Your task to perform on an android device: Go to display settings Image 0: 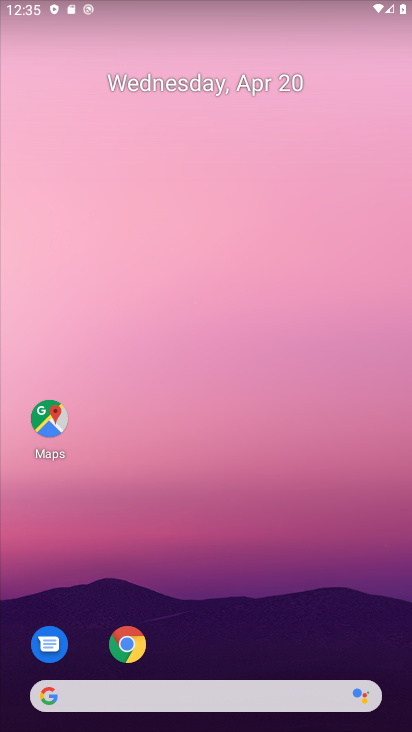
Step 0: drag from (348, 664) to (346, 6)
Your task to perform on an android device: Go to display settings Image 1: 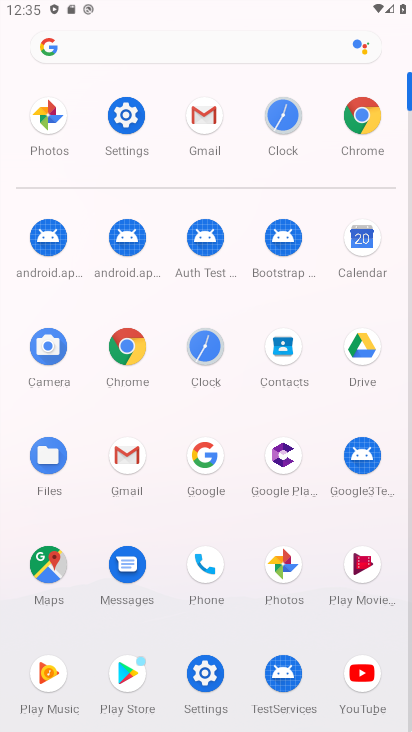
Step 1: click (123, 117)
Your task to perform on an android device: Go to display settings Image 2: 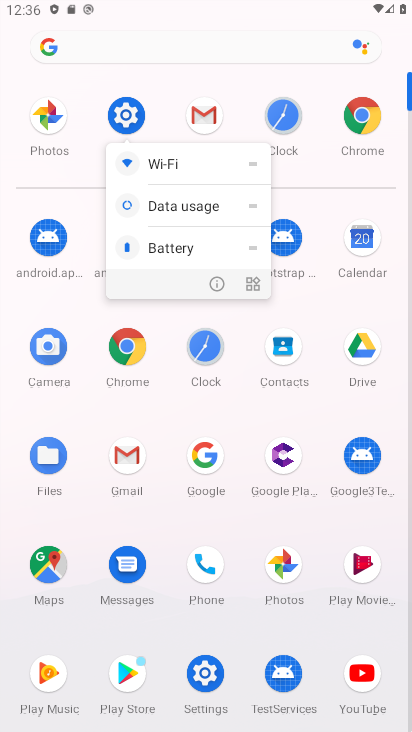
Step 2: click (126, 106)
Your task to perform on an android device: Go to display settings Image 3: 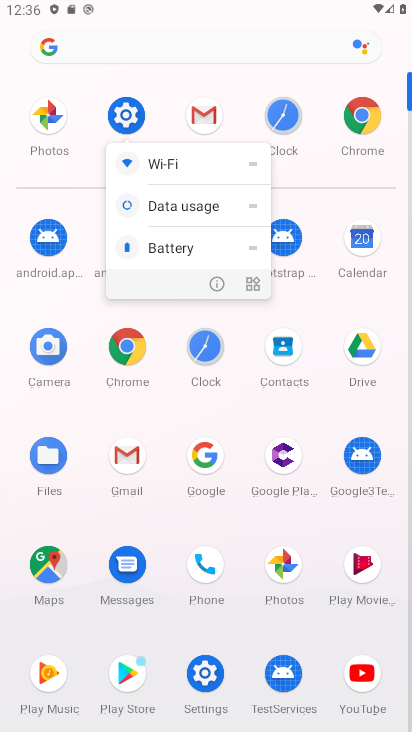
Step 3: click (126, 106)
Your task to perform on an android device: Go to display settings Image 4: 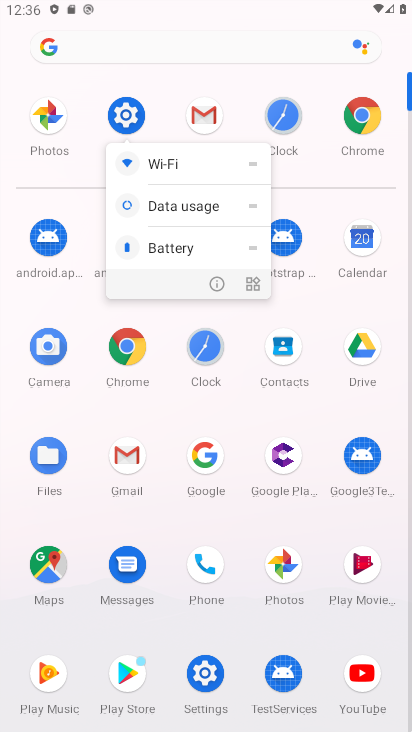
Step 4: click (126, 106)
Your task to perform on an android device: Go to display settings Image 5: 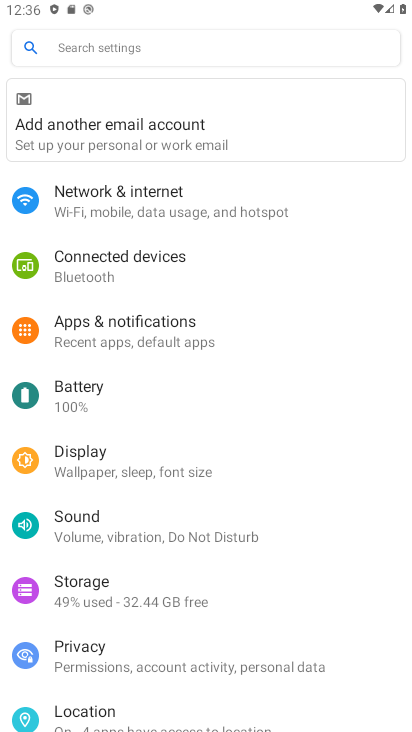
Step 5: click (173, 452)
Your task to perform on an android device: Go to display settings Image 6: 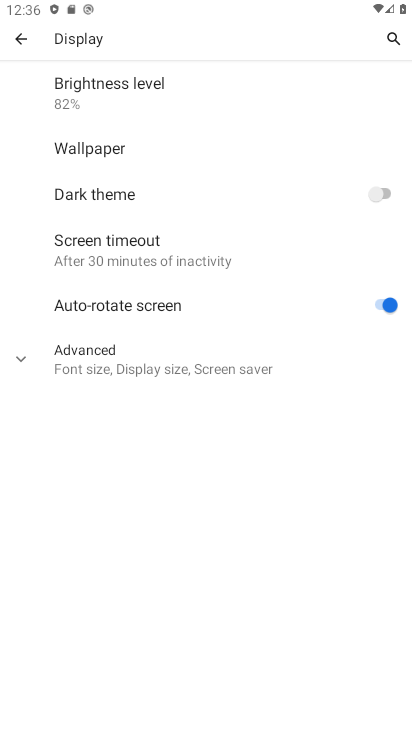
Step 6: task complete